Your task to perform on an android device: change timer sound Image 0: 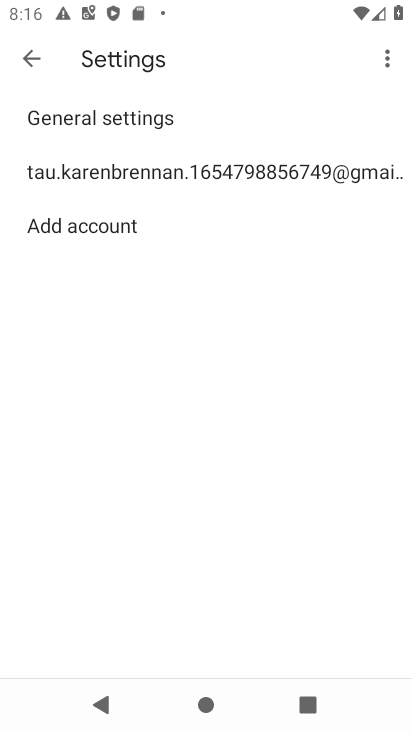
Step 0: press home button
Your task to perform on an android device: change timer sound Image 1: 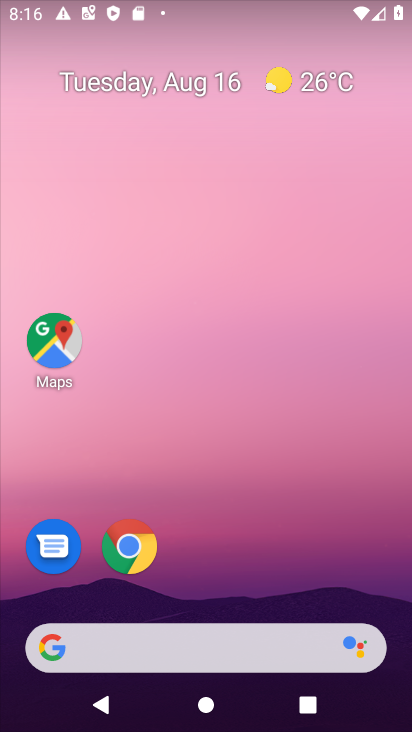
Step 1: drag from (244, 586) to (220, 0)
Your task to perform on an android device: change timer sound Image 2: 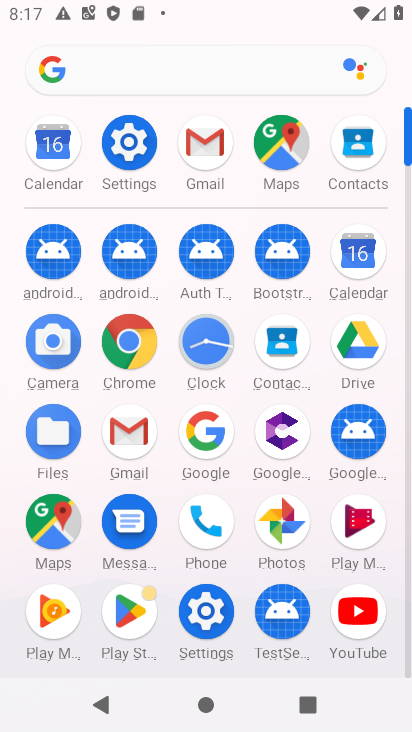
Step 2: click (217, 331)
Your task to perform on an android device: change timer sound Image 3: 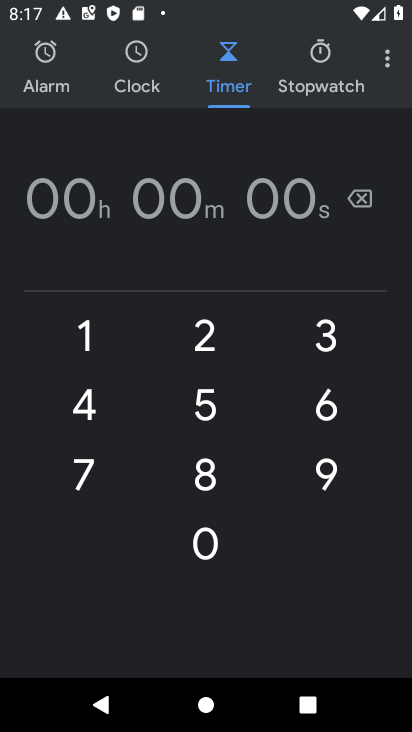
Step 3: click (393, 63)
Your task to perform on an android device: change timer sound Image 4: 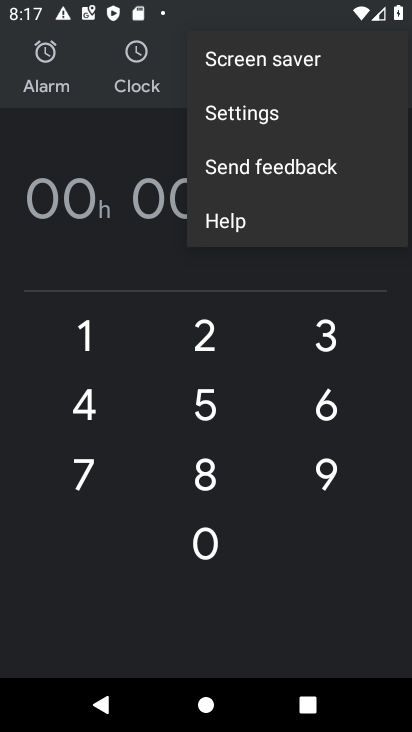
Step 4: click (271, 117)
Your task to perform on an android device: change timer sound Image 5: 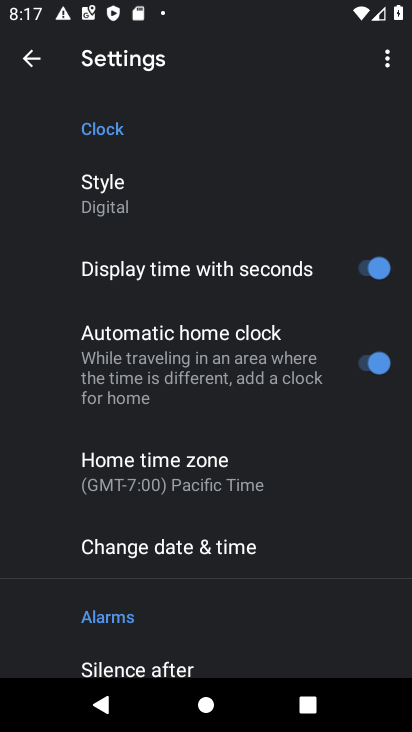
Step 5: drag from (242, 603) to (287, 3)
Your task to perform on an android device: change timer sound Image 6: 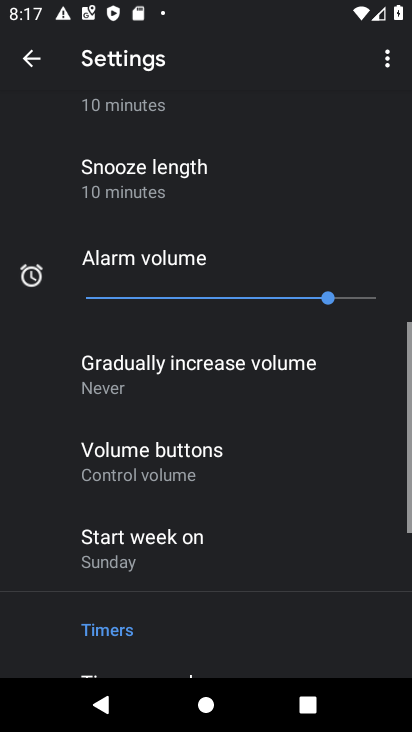
Step 6: drag from (242, 557) to (252, 86)
Your task to perform on an android device: change timer sound Image 7: 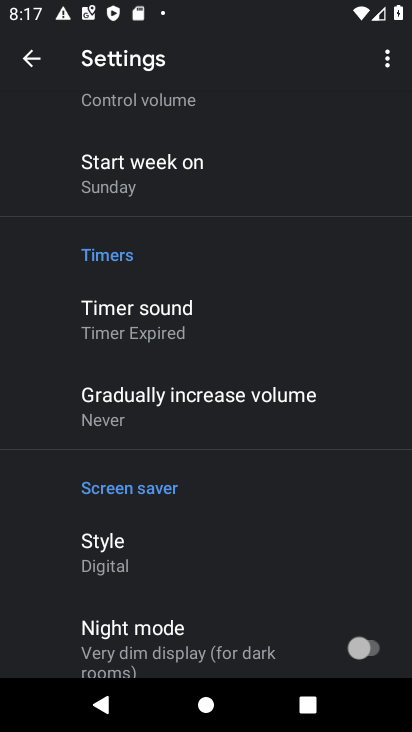
Step 7: click (177, 310)
Your task to perform on an android device: change timer sound Image 8: 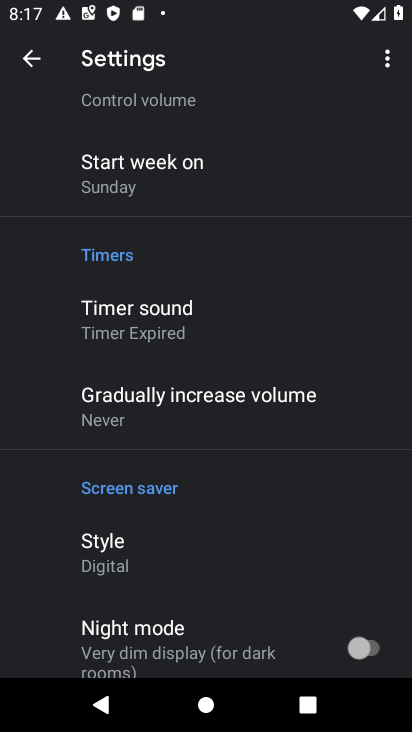
Step 8: click (179, 310)
Your task to perform on an android device: change timer sound Image 9: 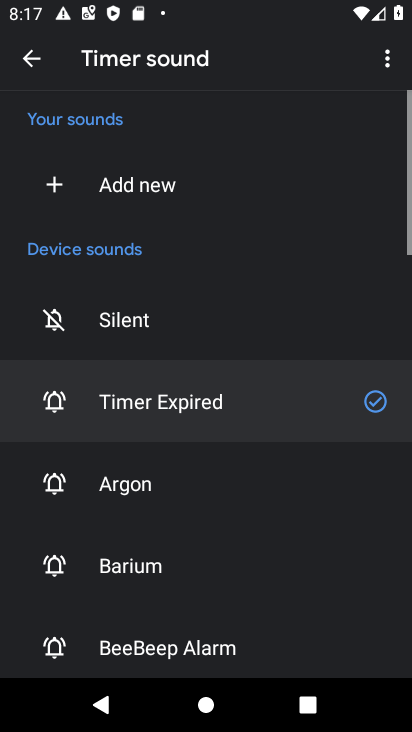
Step 9: click (137, 480)
Your task to perform on an android device: change timer sound Image 10: 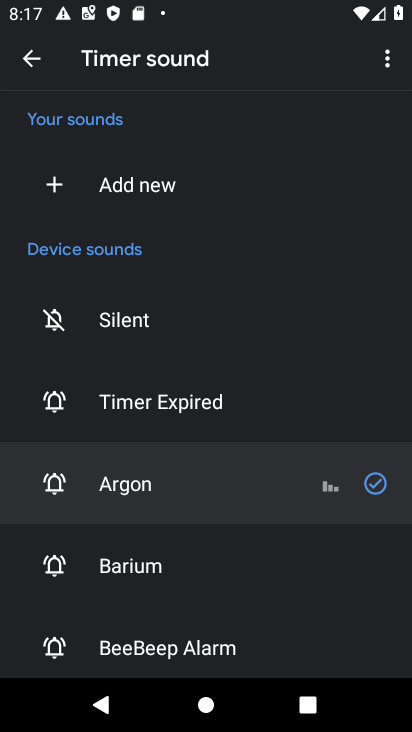
Step 10: task complete